Your task to perform on an android device: change text size in settings app Image 0: 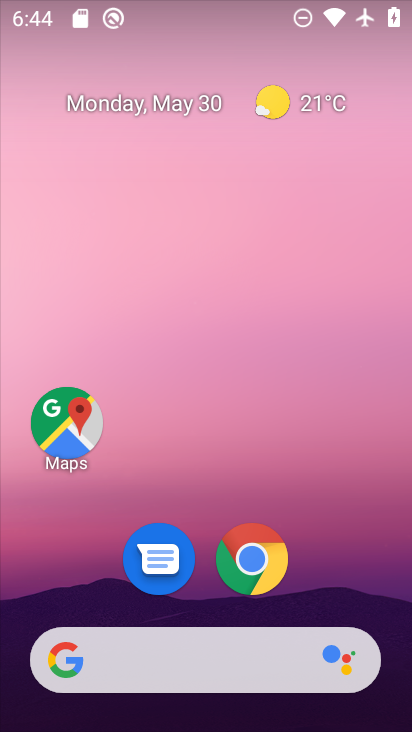
Step 0: drag from (335, 564) to (247, 105)
Your task to perform on an android device: change text size in settings app Image 1: 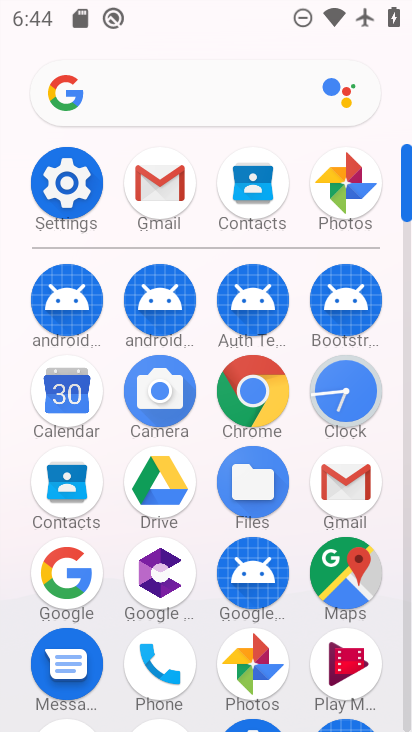
Step 1: click (64, 184)
Your task to perform on an android device: change text size in settings app Image 2: 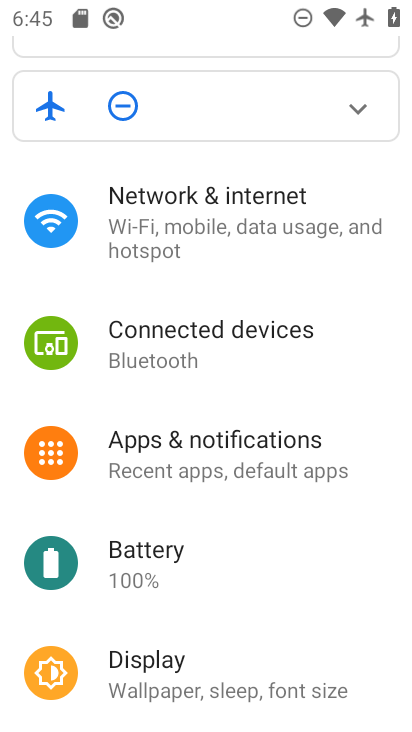
Step 2: click (137, 673)
Your task to perform on an android device: change text size in settings app Image 3: 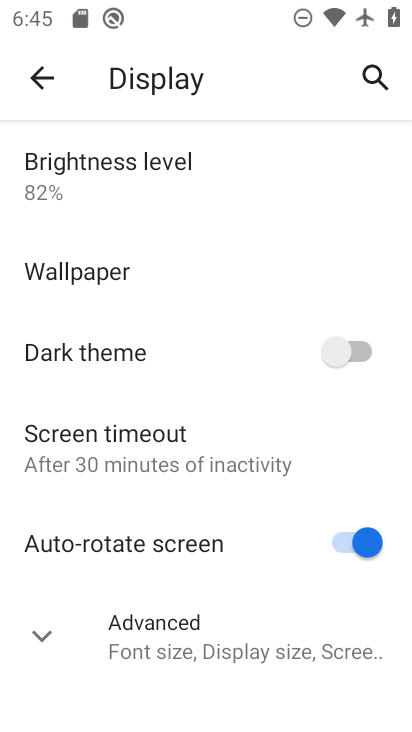
Step 3: click (78, 632)
Your task to perform on an android device: change text size in settings app Image 4: 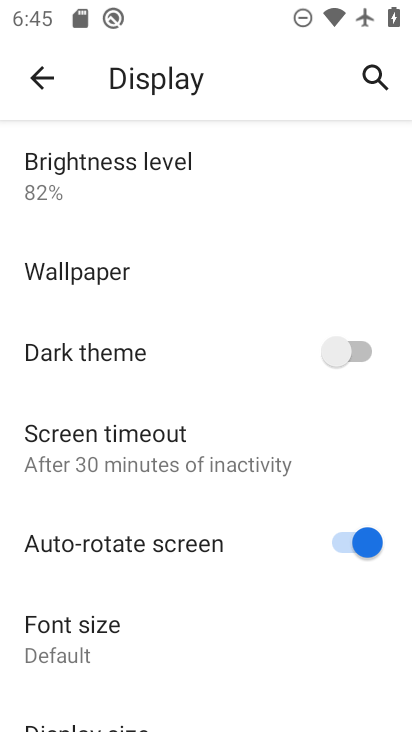
Step 4: click (87, 627)
Your task to perform on an android device: change text size in settings app Image 5: 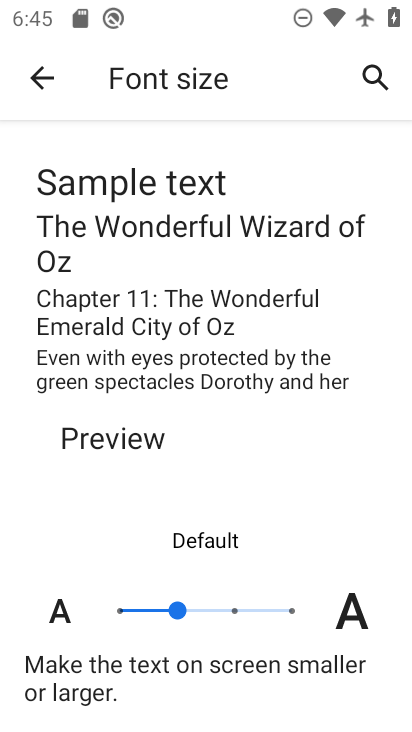
Step 5: click (221, 606)
Your task to perform on an android device: change text size in settings app Image 6: 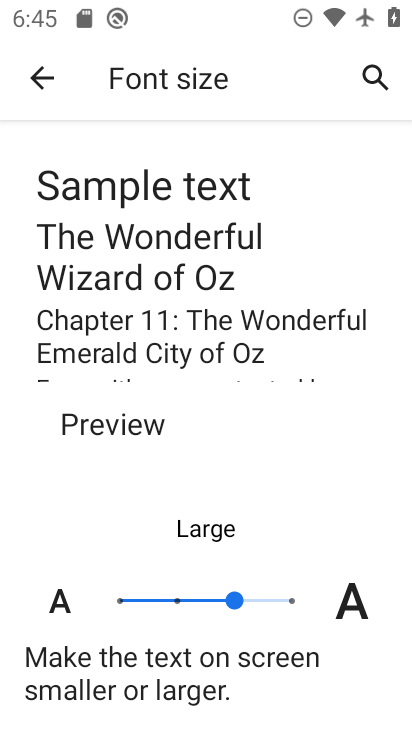
Step 6: task complete